Your task to perform on an android device: Search for flights from NYC to London Image 0: 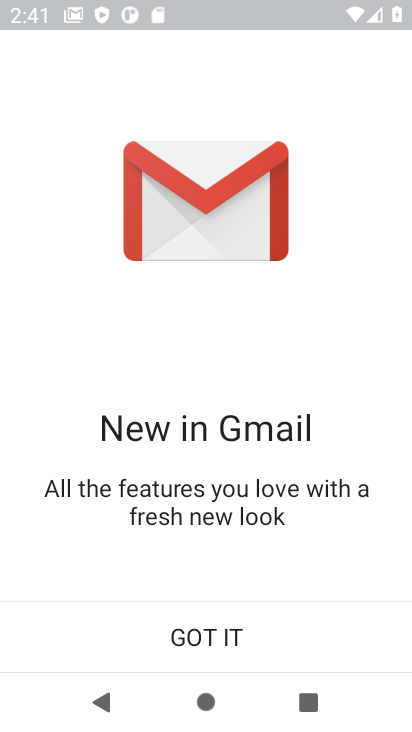
Step 0: press home button
Your task to perform on an android device: Search for flights from NYC to London Image 1: 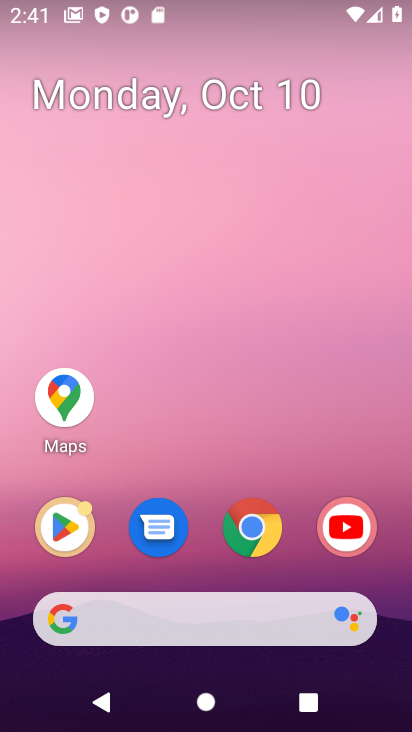
Step 1: click (245, 614)
Your task to perform on an android device: Search for flights from NYC to London Image 2: 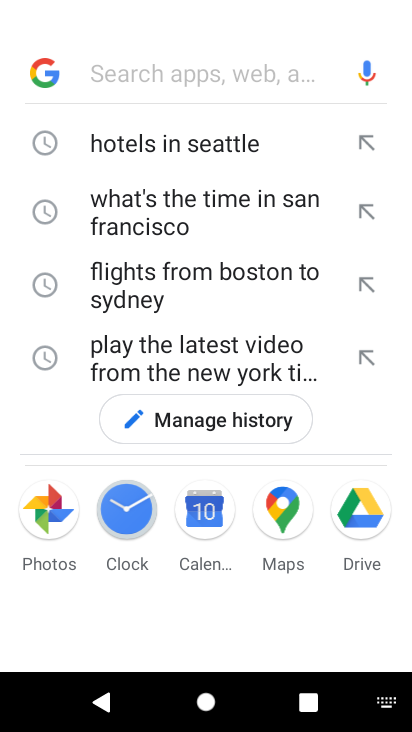
Step 2: type "flights from NYC to London"
Your task to perform on an android device: Search for flights from NYC to London Image 3: 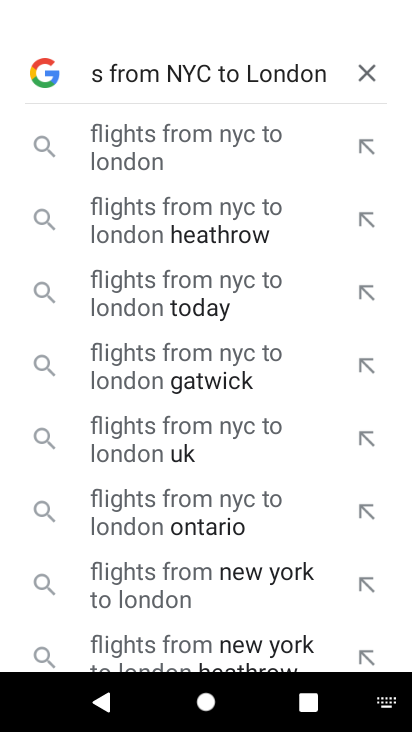
Step 3: press enter
Your task to perform on an android device: Search for flights from NYC to London Image 4: 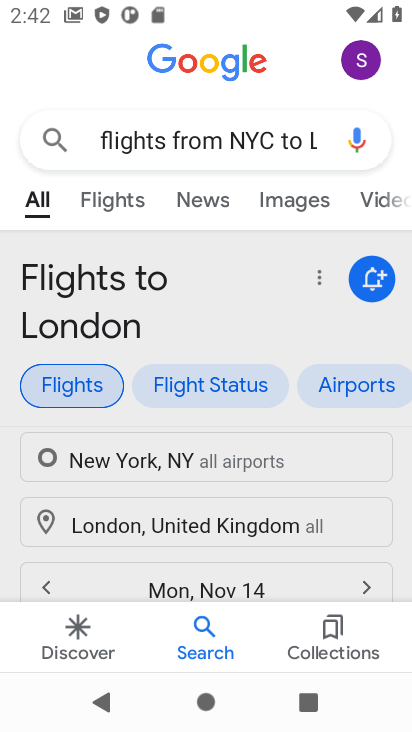
Step 4: drag from (282, 502) to (285, 411)
Your task to perform on an android device: Search for flights from NYC to London Image 5: 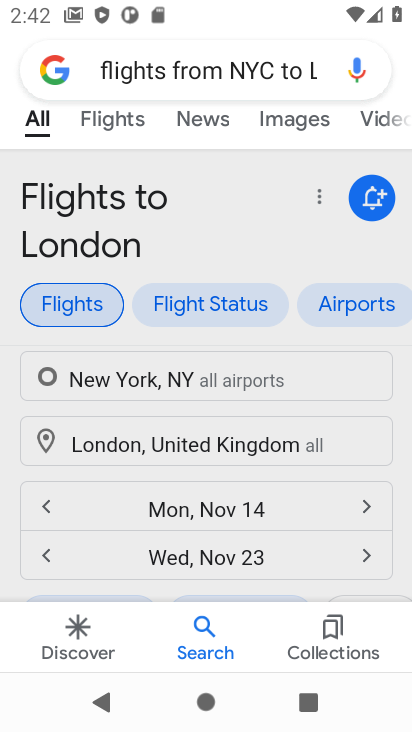
Step 5: drag from (285, 539) to (280, 387)
Your task to perform on an android device: Search for flights from NYC to London Image 6: 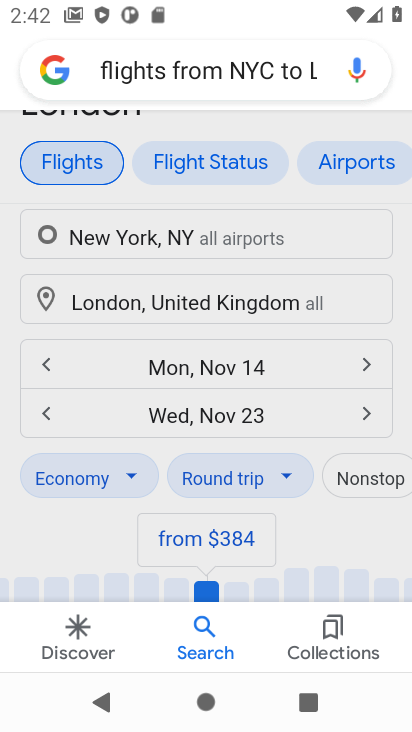
Step 6: drag from (274, 528) to (292, 382)
Your task to perform on an android device: Search for flights from NYC to London Image 7: 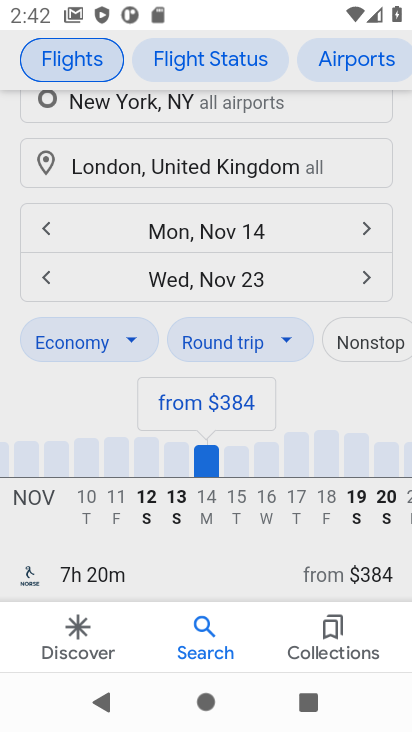
Step 7: drag from (269, 532) to (280, 313)
Your task to perform on an android device: Search for flights from NYC to London Image 8: 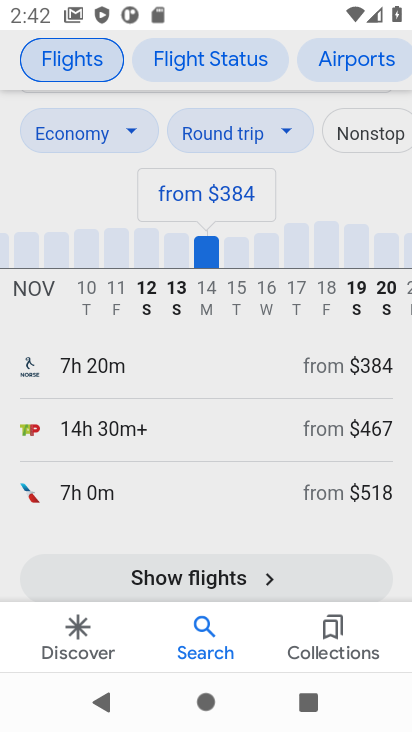
Step 8: click (222, 569)
Your task to perform on an android device: Search for flights from NYC to London Image 9: 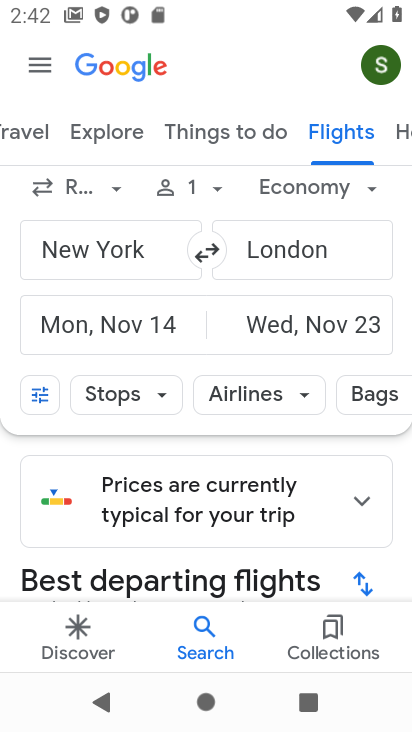
Step 9: task complete